Your task to perform on an android device: Open maps Image 0: 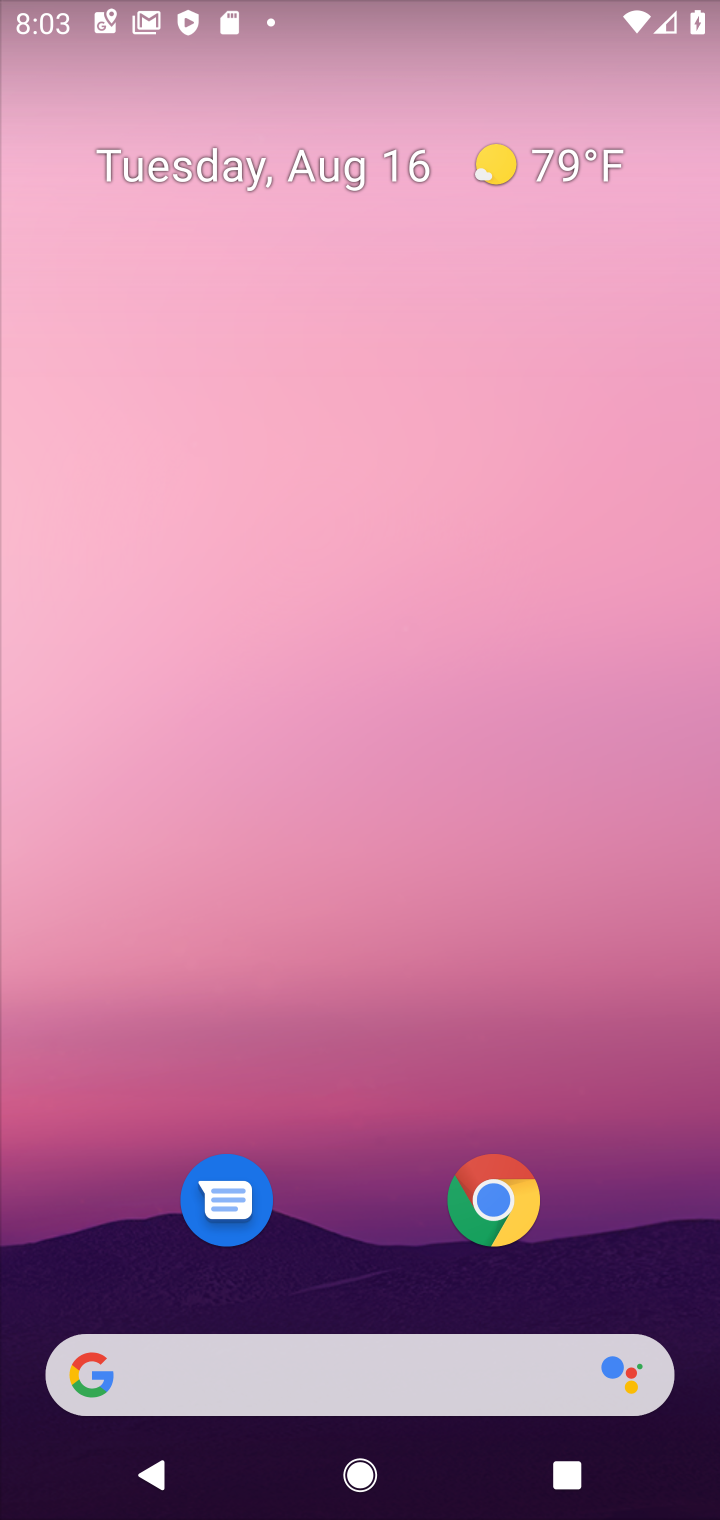
Step 0: drag from (616, 1051) to (600, 176)
Your task to perform on an android device: Open maps Image 1: 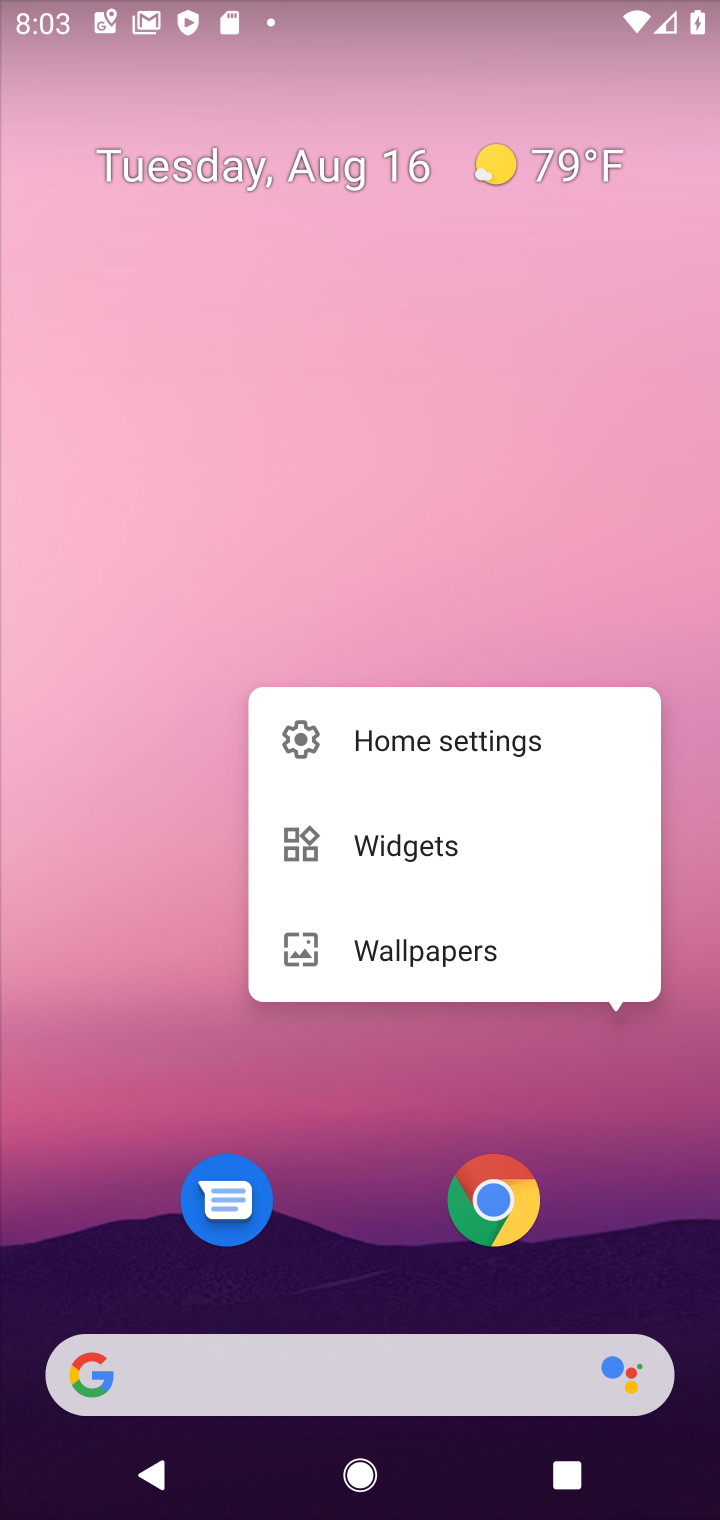
Step 1: click (642, 1185)
Your task to perform on an android device: Open maps Image 2: 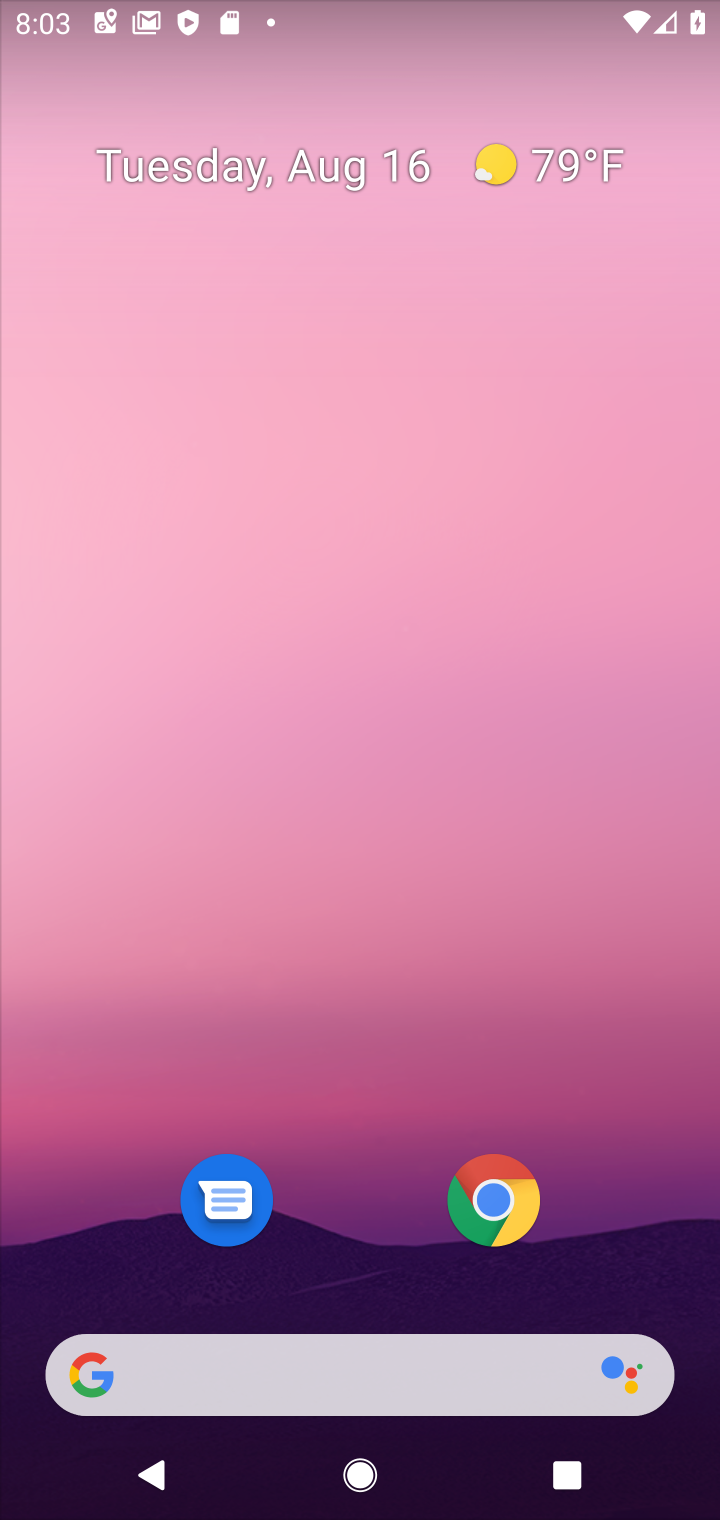
Step 2: drag from (642, 1185) to (601, 300)
Your task to perform on an android device: Open maps Image 3: 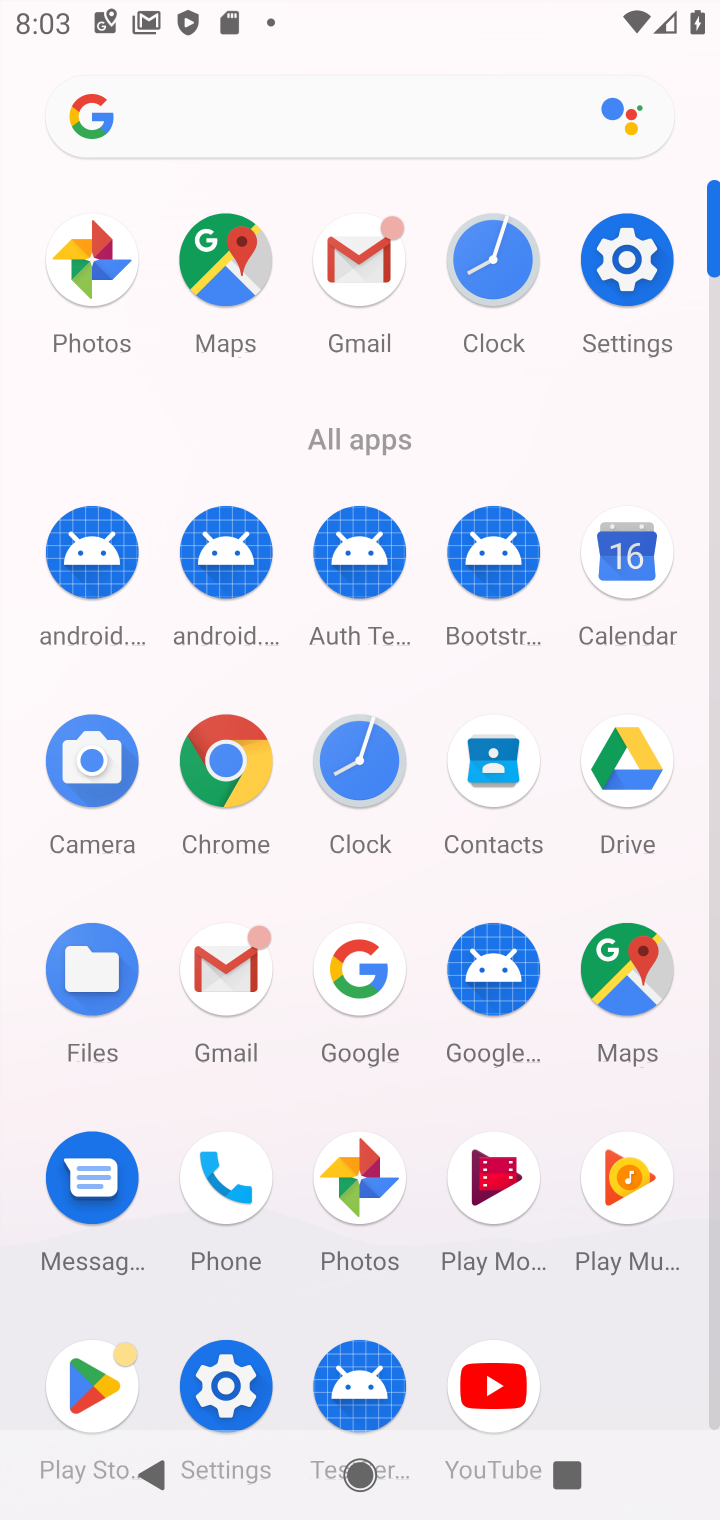
Step 3: click (628, 977)
Your task to perform on an android device: Open maps Image 4: 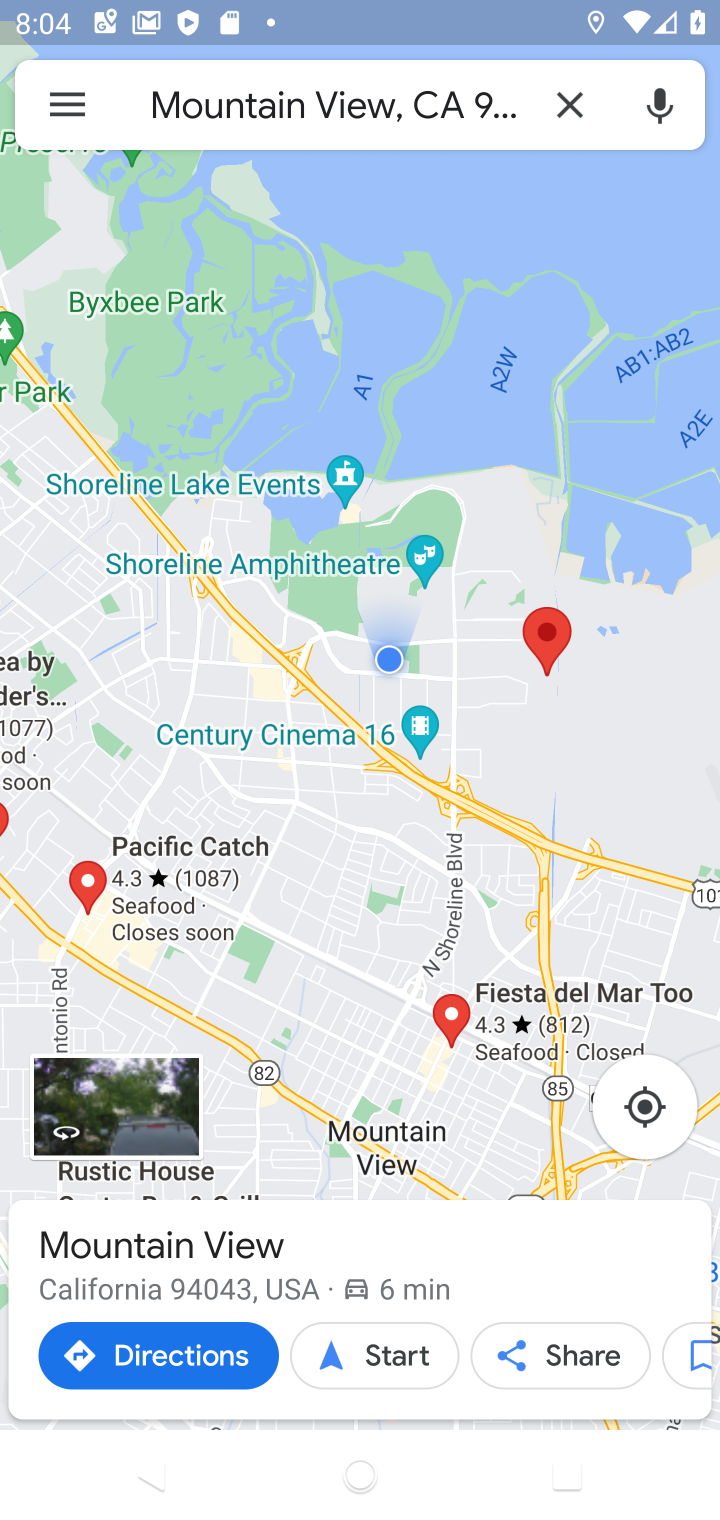
Step 4: click (565, 103)
Your task to perform on an android device: Open maps Image 5: 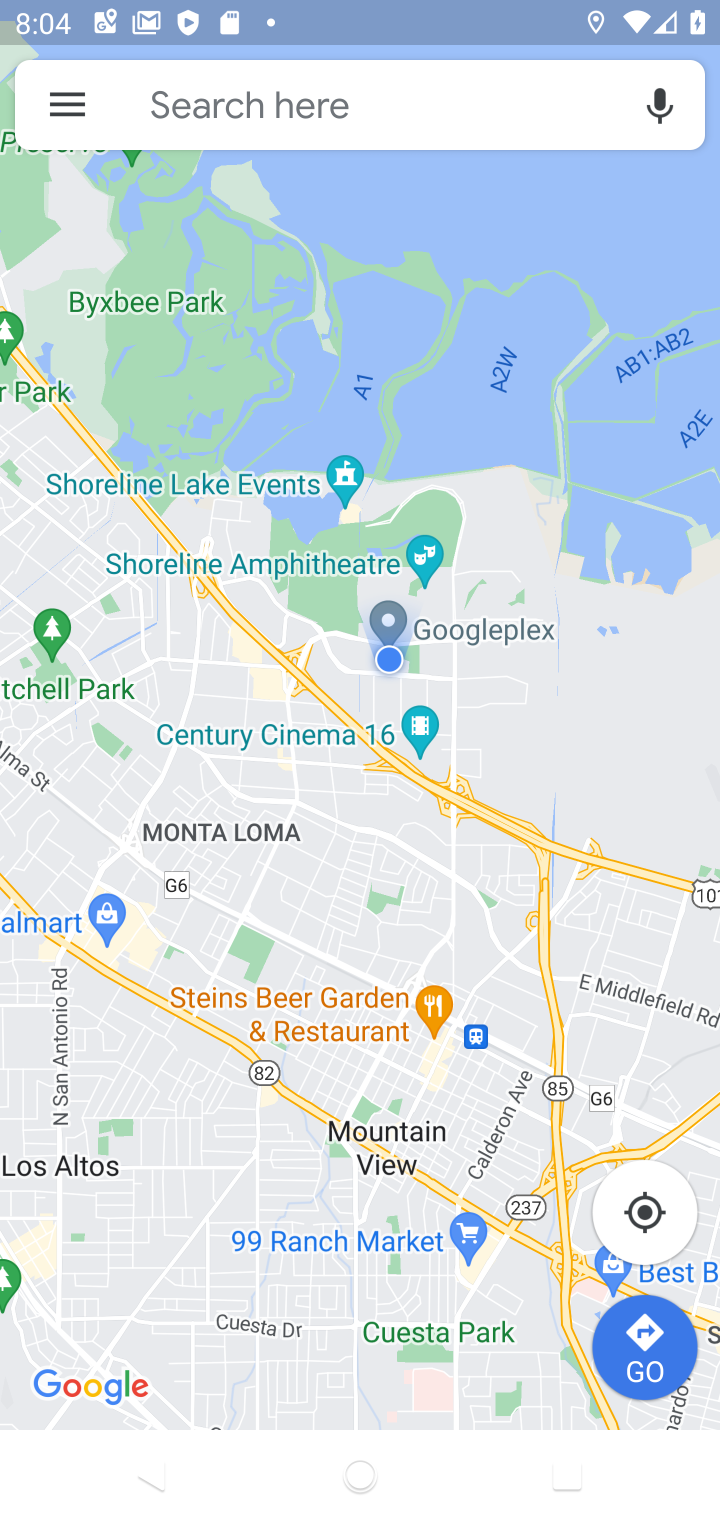
Step 5: task complete